Your task to perform on an android device: toggle data saver in the chrome app Image 0: 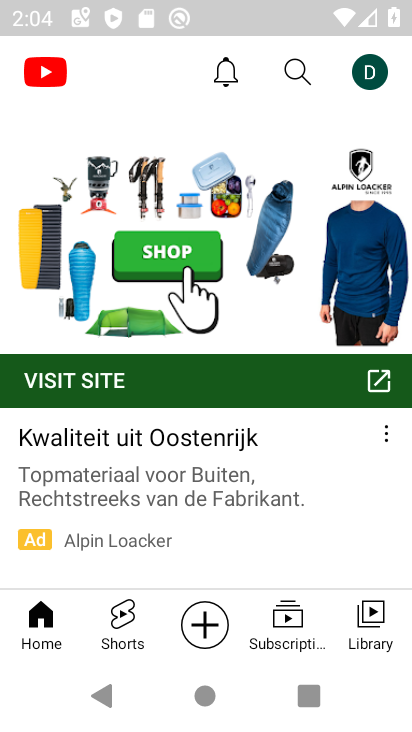
Step 0: press home button
Your task to perform on an android device: toggle data saver in the chrome app Image 1: 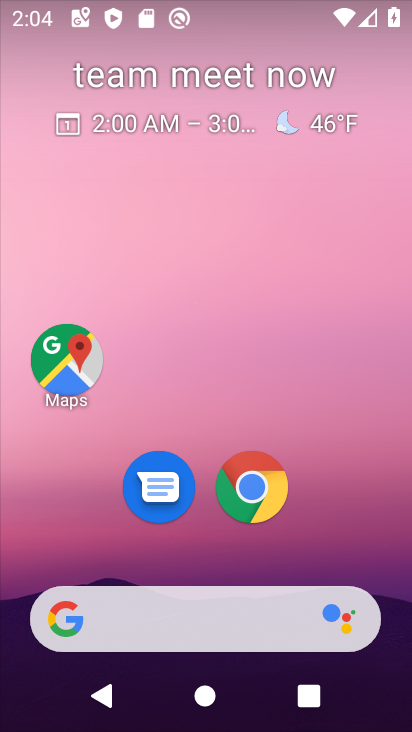
Step 1: click (253, 486)
Your task to perform on an android device: toggle data saver in the chrome app Image 2: 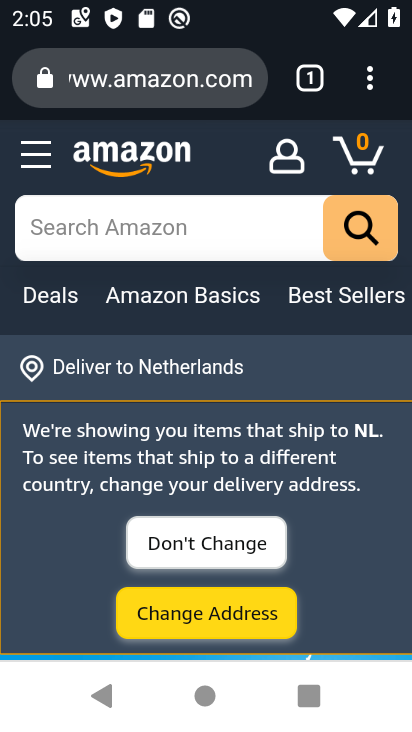
Step 2: drag from (374, 81) to (144, 567)
Your task to perform on an android device: toggle data saver in the chrome app Image 3: 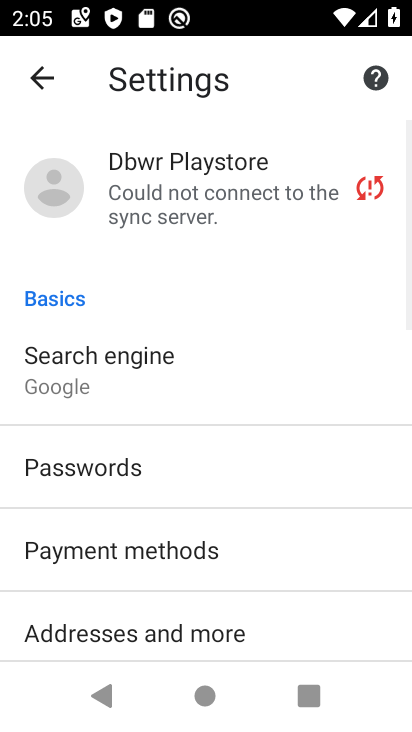
Step 3: drag from (316, 546) to (325, 253)
Your task to perform on an android device: toggle data saver in the chrome app Image 4: 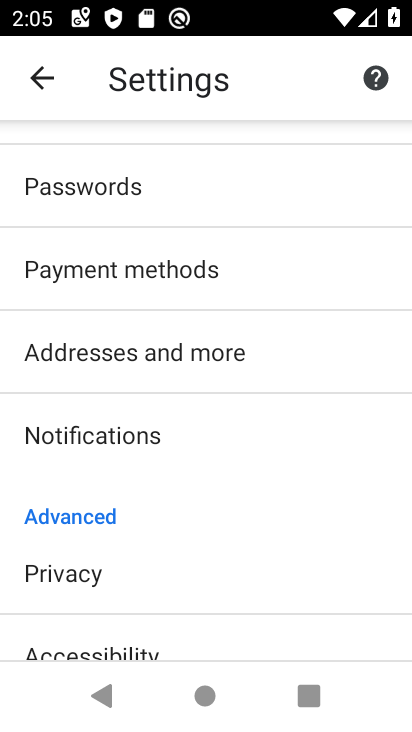
Step 4: drag from (287, 554) to (238, 184)
Your task to perform on an android device: toggle data saver in the chrome app Image 5: 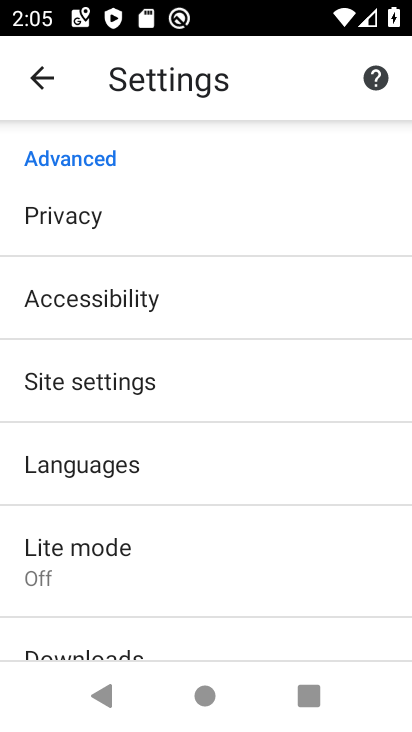
Step 5: click (137, 546)
Your task to perform on an android device: toggle data saver in the chrome app Image 6: 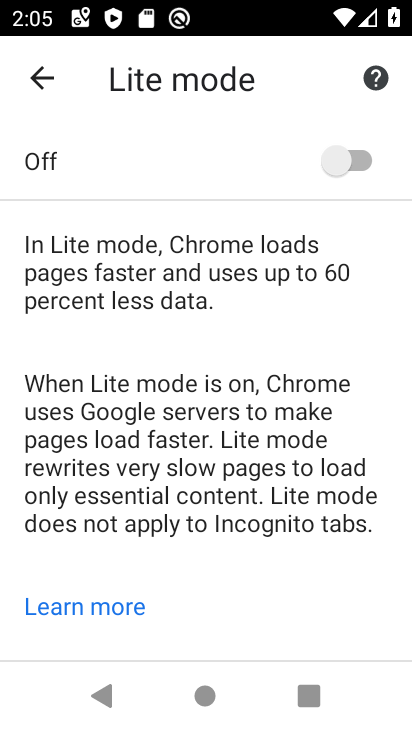
Step 6: click (341, 167)
Your task to perform on an android device: toggle data saver in the chrome app Image 7: 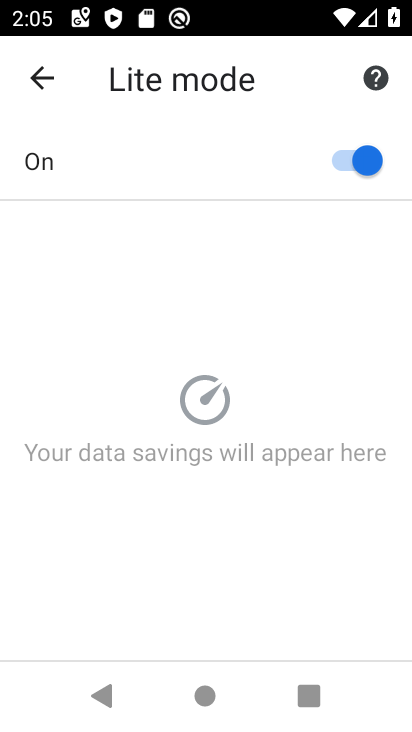
Step 7: task complete